Your task to perform on an android device: all mails in gmail Image 0: 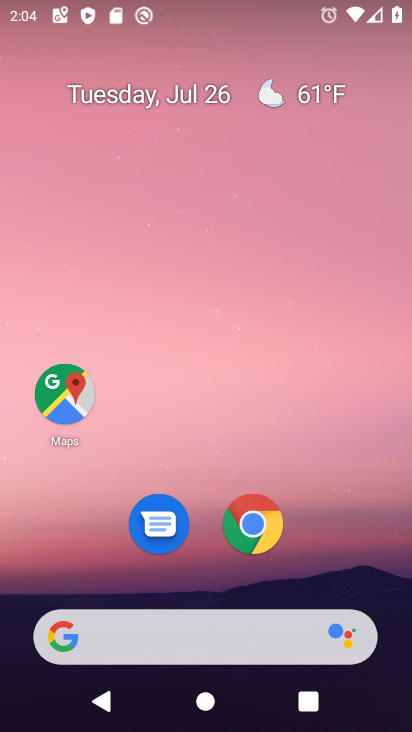
Step 0: press home button
Your task to perform on an android device: all mails in gmail Image 1: 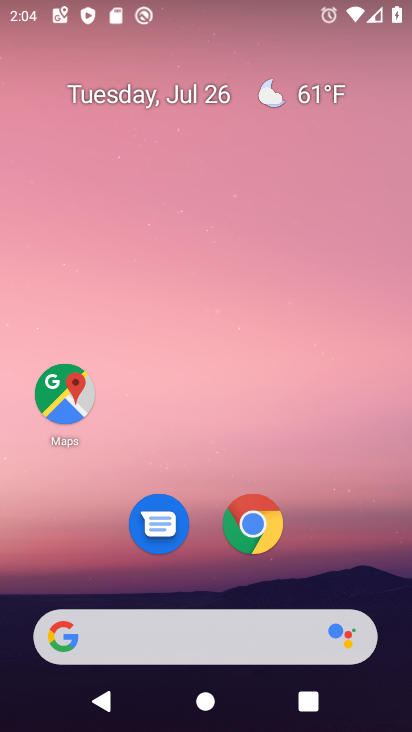
Step 1: drag from (161, 613) to (215, 167)
Your task to perform on an android device: all mails in gmail Image 2: 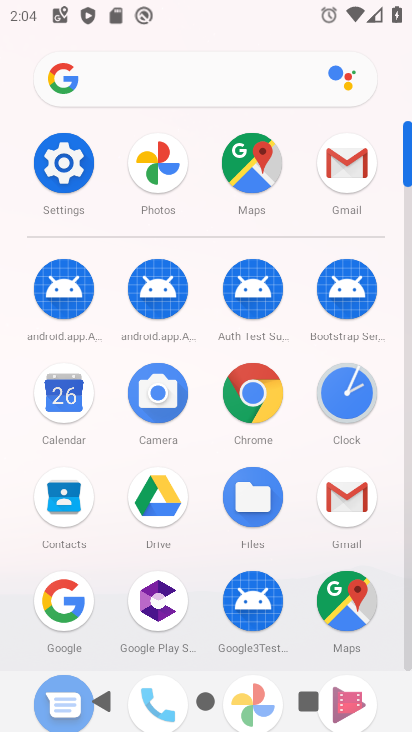
Step 2: click (350, 151)
Your task to perform on an android device: all mails in gmail Image 3: 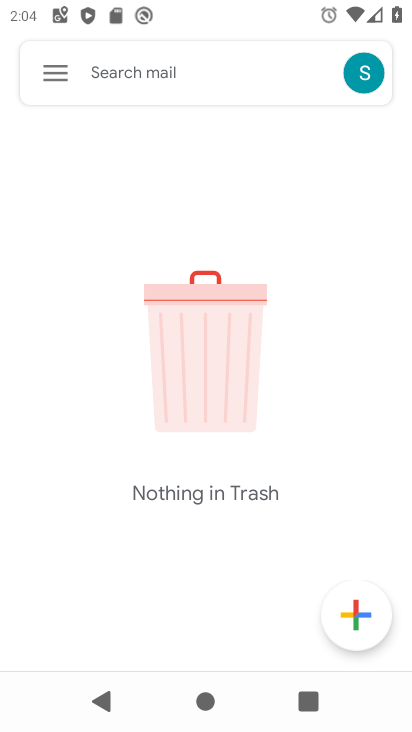
Step 3: click (41, 68)
Your task to perform on an android device: all mails in gmail Image 4: 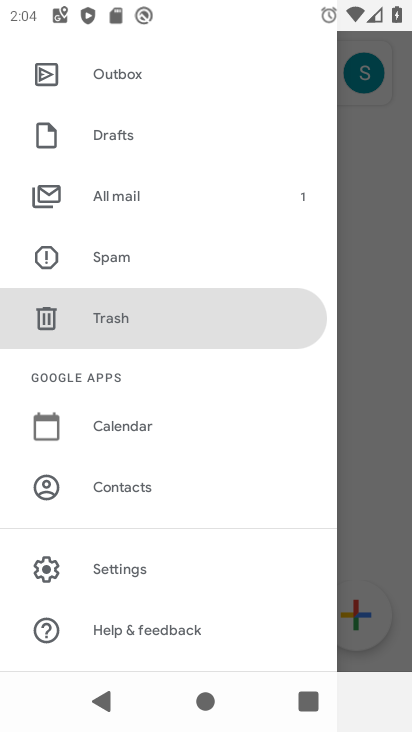
Step 4: drag from (199, 517) to (250, 327)
Your task to perform on an android device: all mails in gmail Image 5: 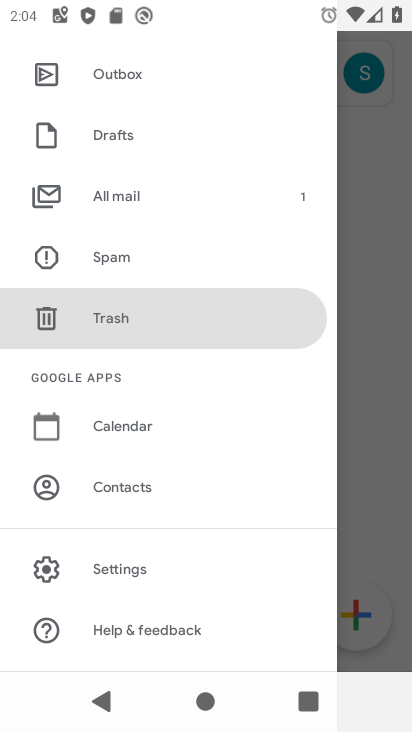
Step 5: click (124, 197)
Your task to perform on an android device: all mails in gmail Image 6: 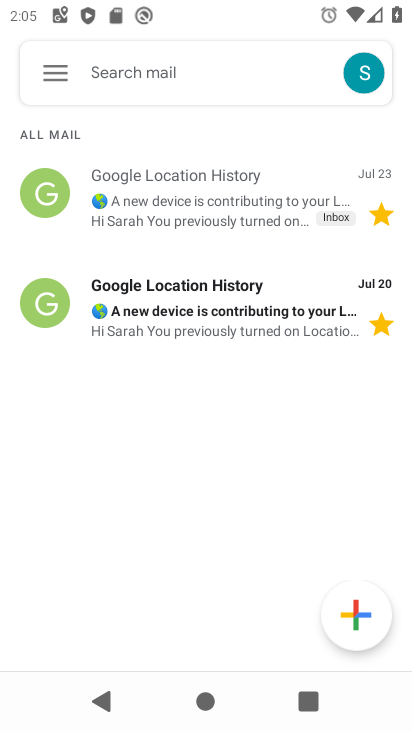
Step 6: task complete